Your task to perform on an android device: change the clock display to analog Image 0: 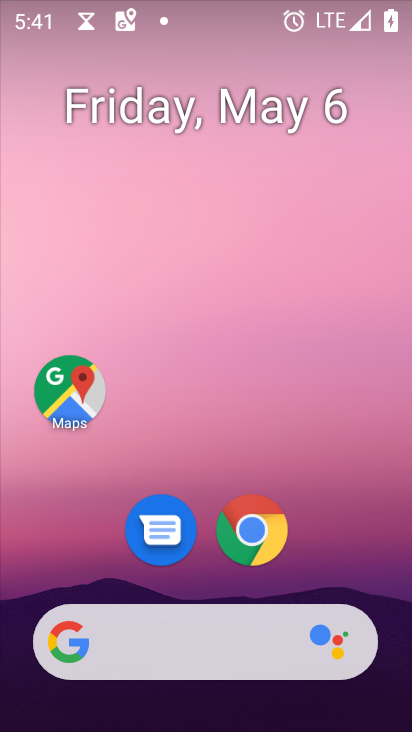
Step 0: drag from (323, 514) to (214, 69)
Your task to perform on an android device: change the clock display to analog Image 1: 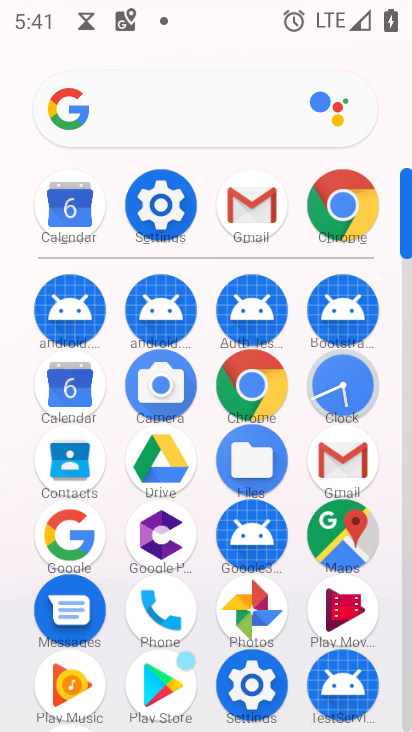
Step 1: click (349, 381)
Your task to perform on an android device: change the clock display to analog Image 2: 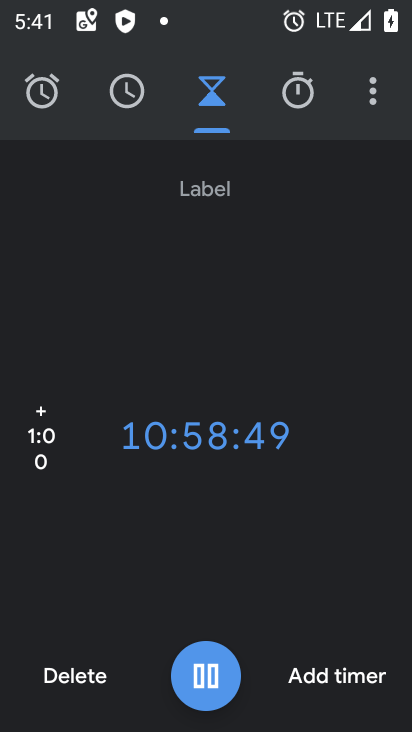
Step 2: click (368, 86)
Your task to perform on an android device: change the clock display to analog Image 3: 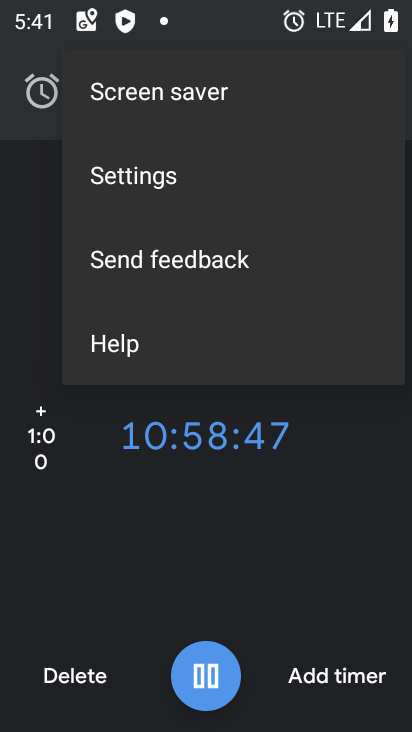
Step 3: click (149, 174)
Your task to perform on an android device: change the clock display to analog Image 4: 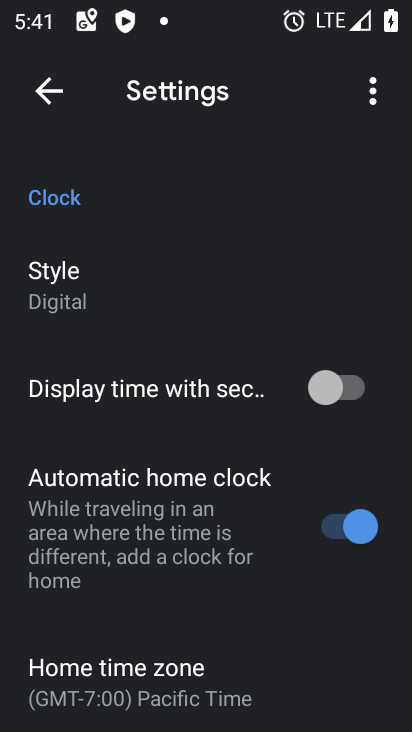
Step 4: click (144, 291)
Your task to perform on an android device: change the clock display to analog Image 5: 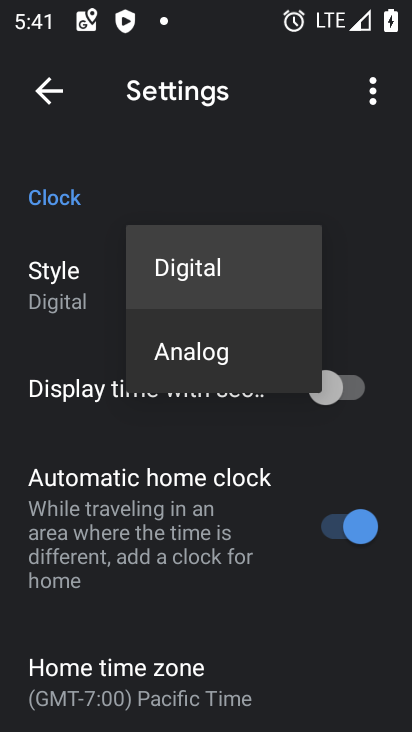
Step 5: click (202, 352)
Your task to perform on an android device: change the clock display to analog Image 6: 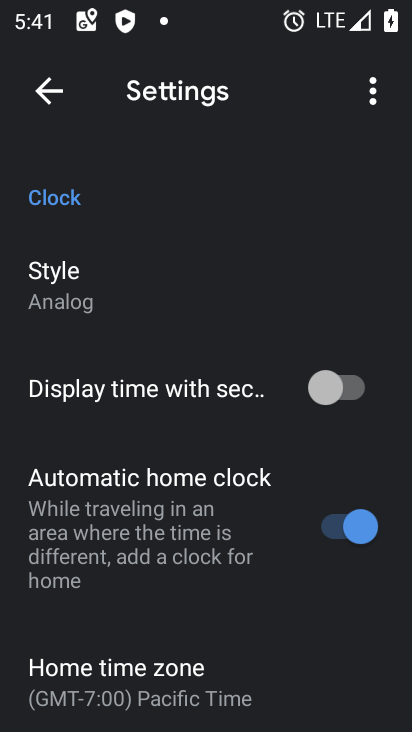
Step 6: task complete